Your task to perform on an android device: change notifications settings Image 0: 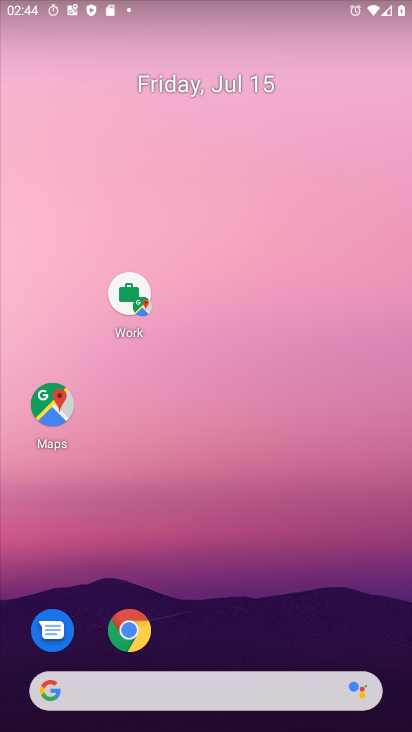
Step 0: drag from (213, 643) to (210, 233)
Your task to perform on an android device: change notifications settings Image 1: 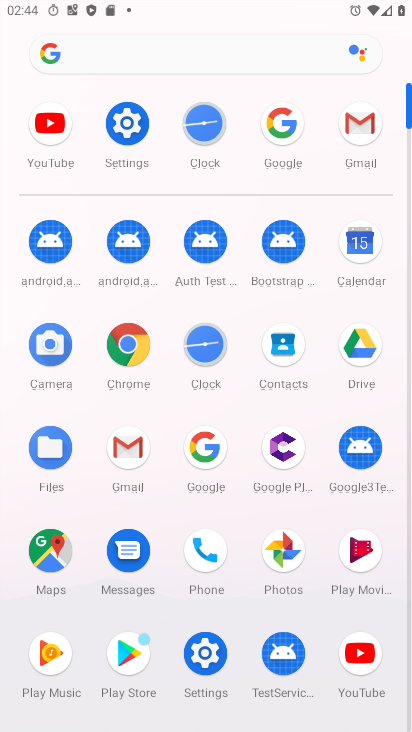
Step 1: click (143, 128)
Your task to perform on an android device: change notifications settings Image 2: 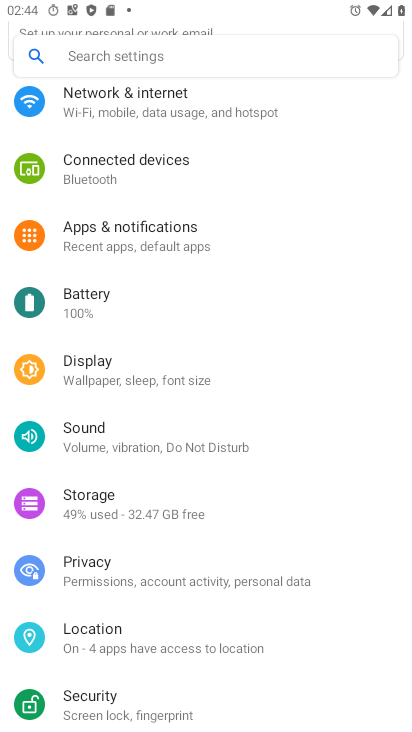
Step 2: click (172, 254)
Your task to perform on an android device: change notifications settings Image 3: 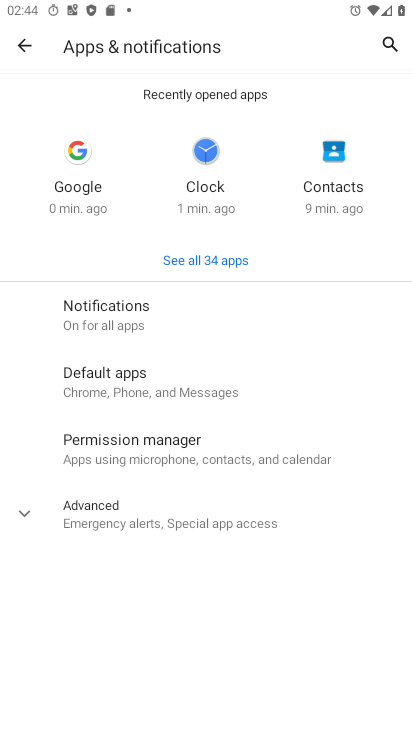
Step 3: click (84, 327)
Your task to perform on an android device: change notifications settings Image 4: 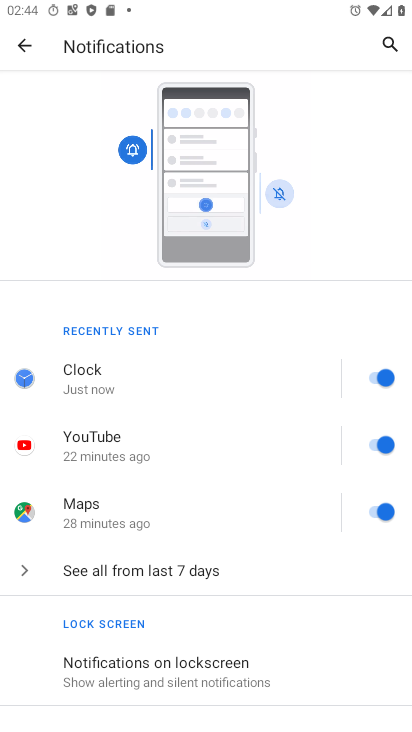
Step 4: drag from (223, 639) to (224, 328)
Your task to perform on an android device: change notifications settings Image 5: 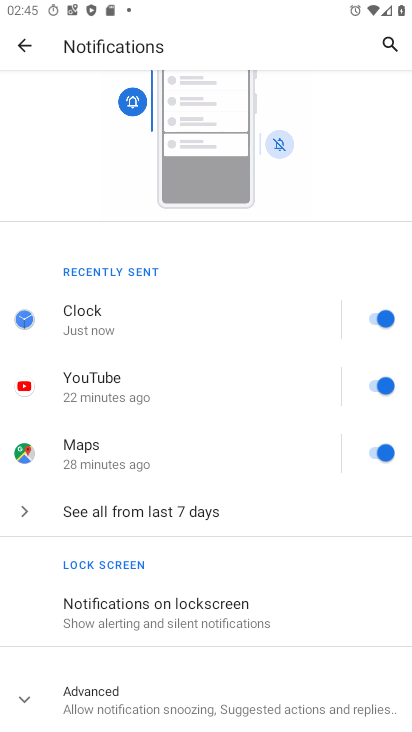
Step 5: click (196, 599)
Your task to perform on an android device: change notifications settings Image 6: 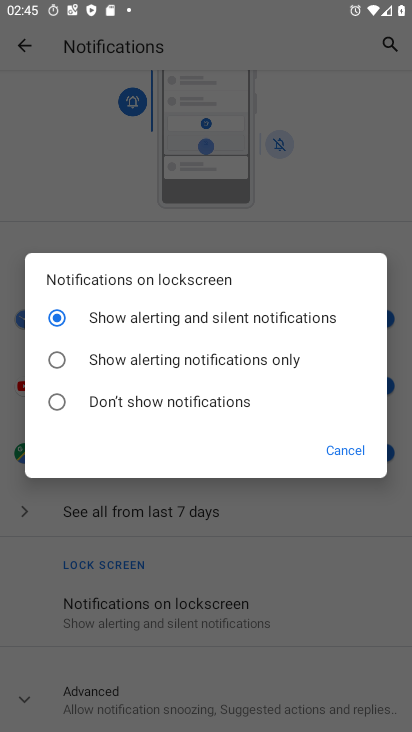
Step 6: click (216, 407)
Your task to perform on an android device: change notifications settings Image 7: 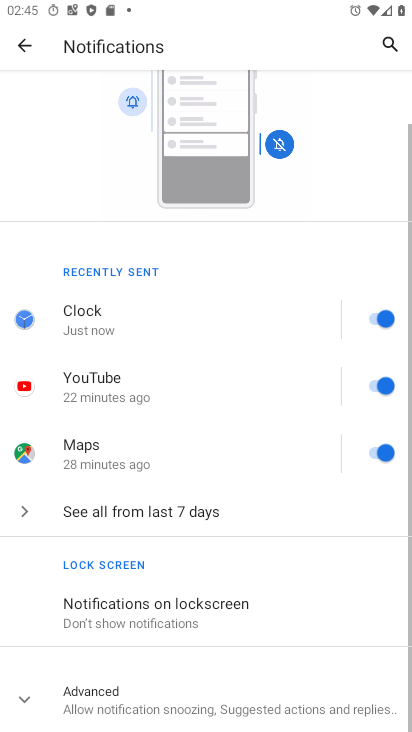
Step 7: task complete